Your task to perform on an android device: Go to CNN.com Image 0: 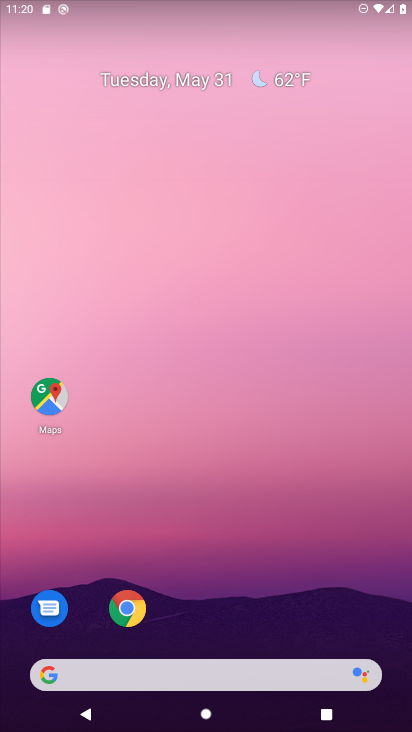
Step 0: drag from (265, 610) to (273, 210)
Your task to perform on an android device: Go to CNN.com Image 1: 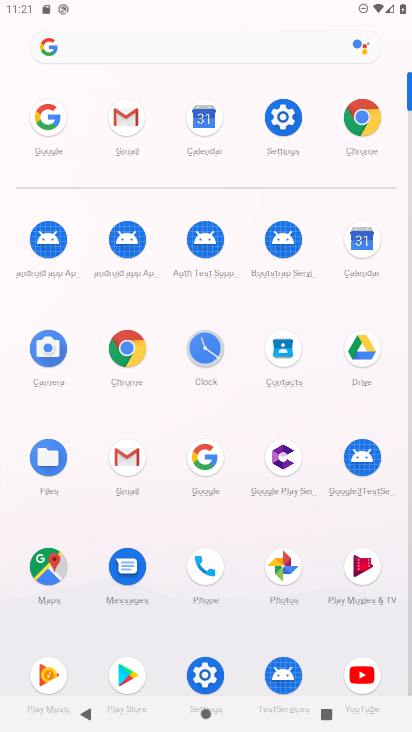
Step 1: click (132, 365)
Your task to perform on an android device: Go to CNN.com Image 2: 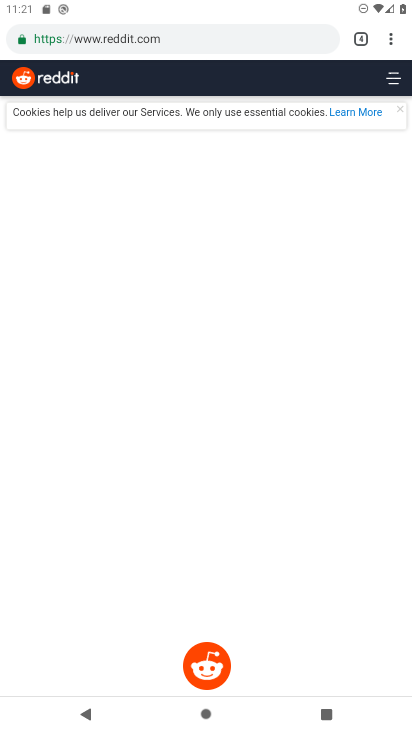
Step 2: click (192, 29)
Your task to perform on an android device: Go to CNN.com Image 3: 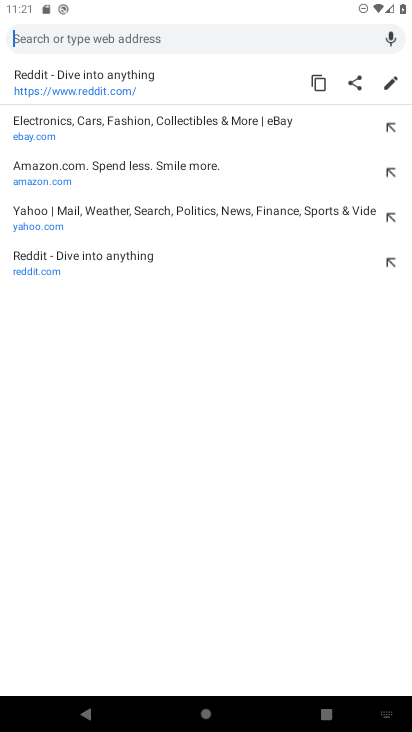
Step 3: type "cnn.com"
Your task to perform on an android device: Go to CNN.com Image 4: 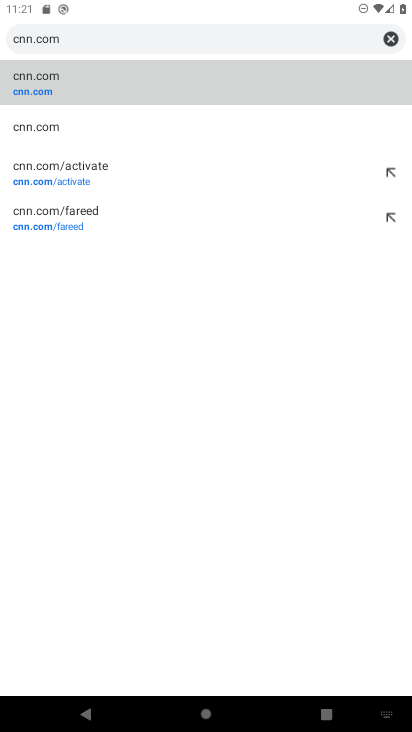
Step 4: click (76, 88)
Your task to perform on an android device: Go to CNN.com Image 5: 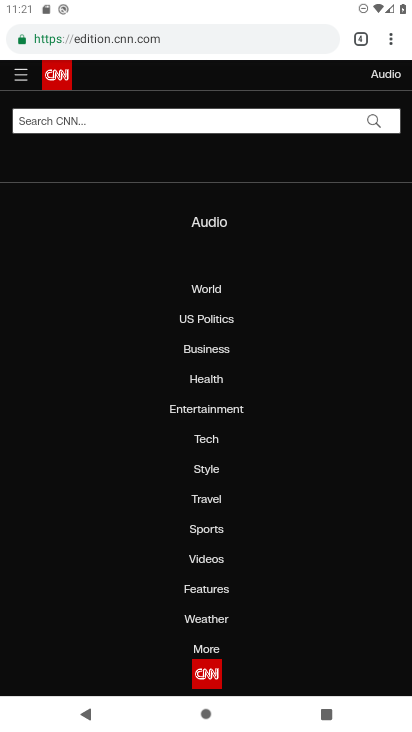
Step 5: task complete